Your task to perform on an android device: Do I have any events this weekend? Image 0: 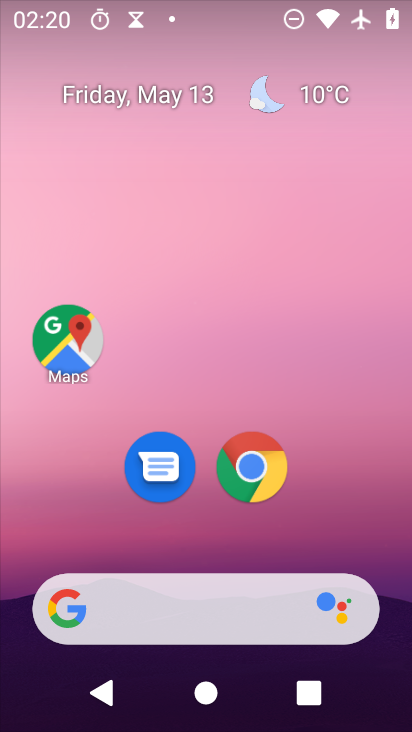
Step 0: click (150, 97)
Your task to perform on an android device: Do I have any events this weekend? Image 1: 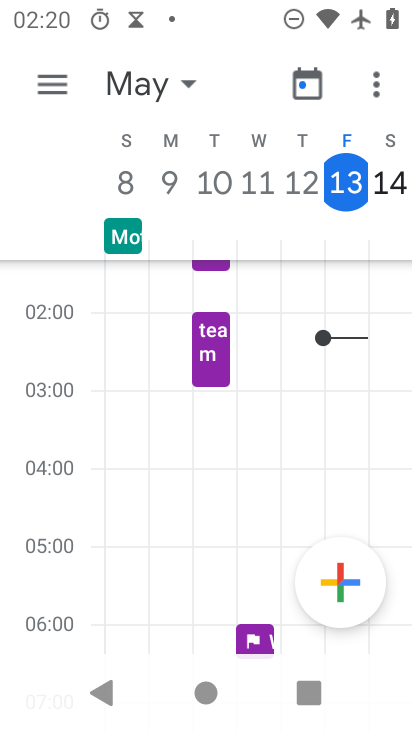
Step 1: task complete